Your task to perform on an android device: Search for macbook on ebay, select the first entry, and add it to the cart. Image 0: 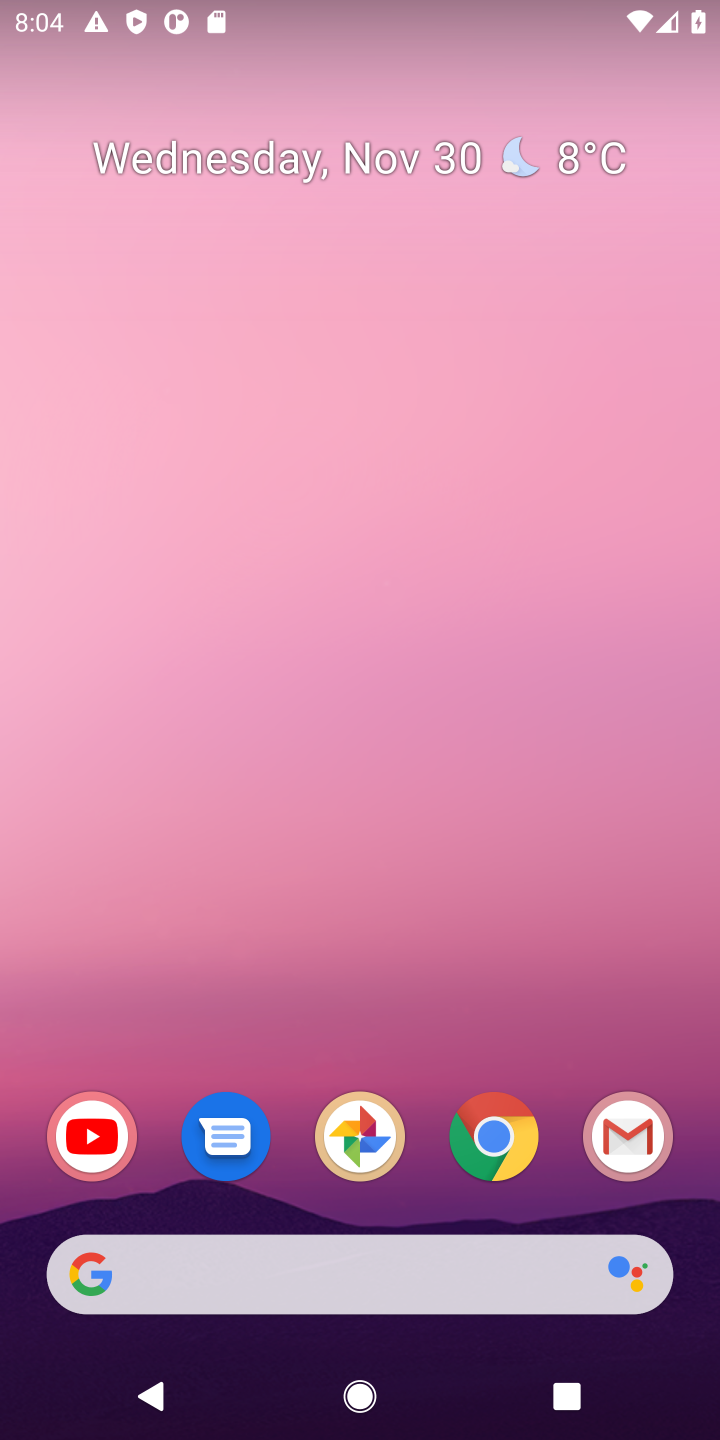
Step 0: click (494, 1142)
Your task to perform on an android device: Search for macbook on ebay, select the first entry, and add it to the cart. Image 1: 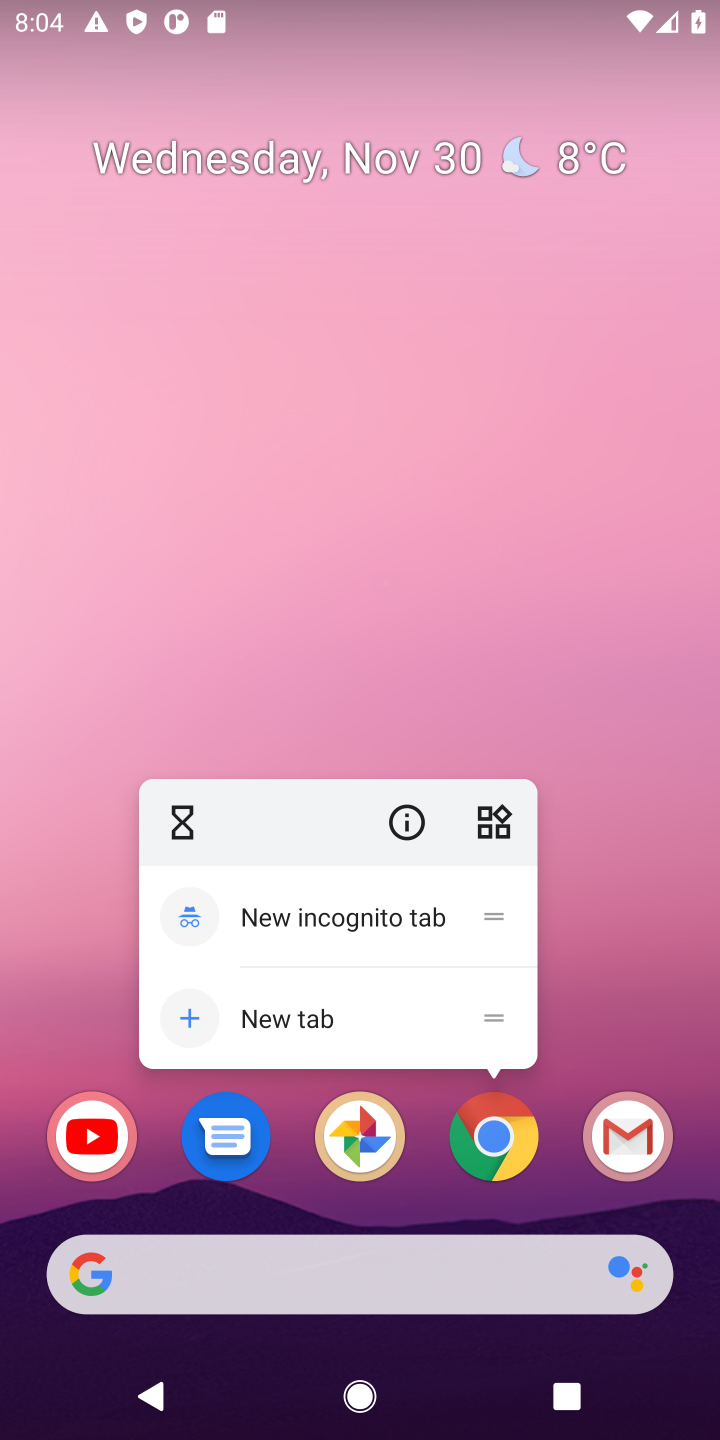
Step 1: click (494, 1142)
Your task to perform on an android device: Search for macbook on ebay, select the first entry, and add it to the cart. Image 2: 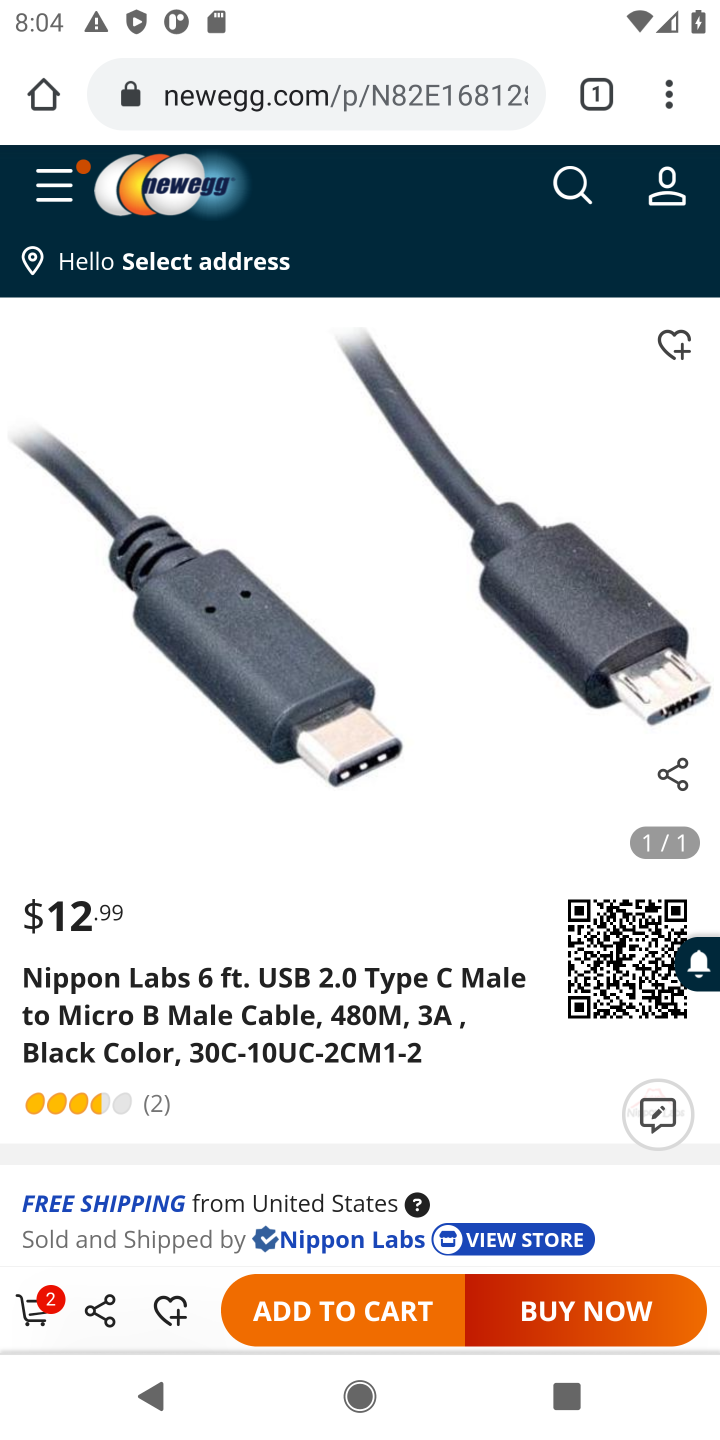
Step 2: click (285, 91)
Your task to perform on an android device: Search for macbook on ebay, select the first entry, and add it to the cart. Image 3: 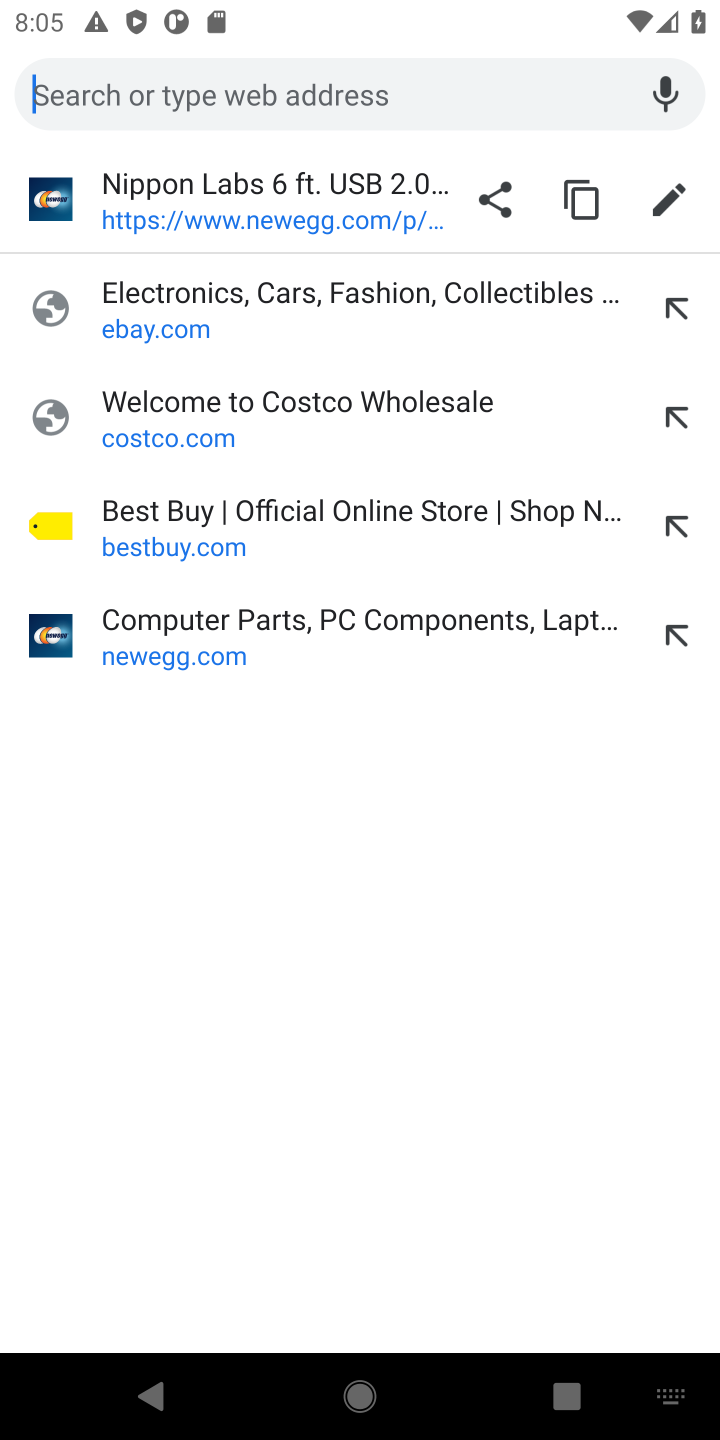
Step 3: click (146, 304)
Your task to perform on an android device: Search for macbook on ebay, select the first entry, and add it to the cart. Image 4: 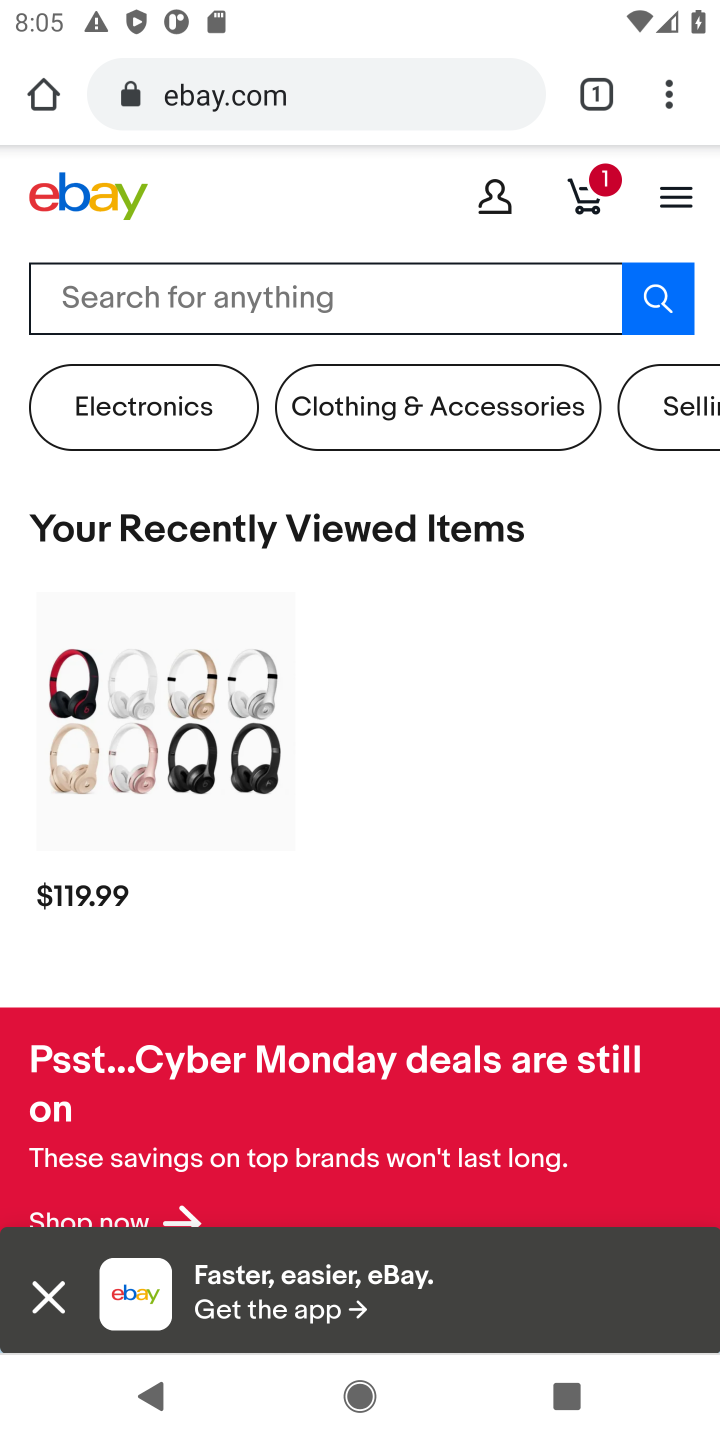
Step 4: click (150, 299)
Your task to perform on an android device: Search for macbook on ebay, select the first entry, and add it to the cart. Image 5: 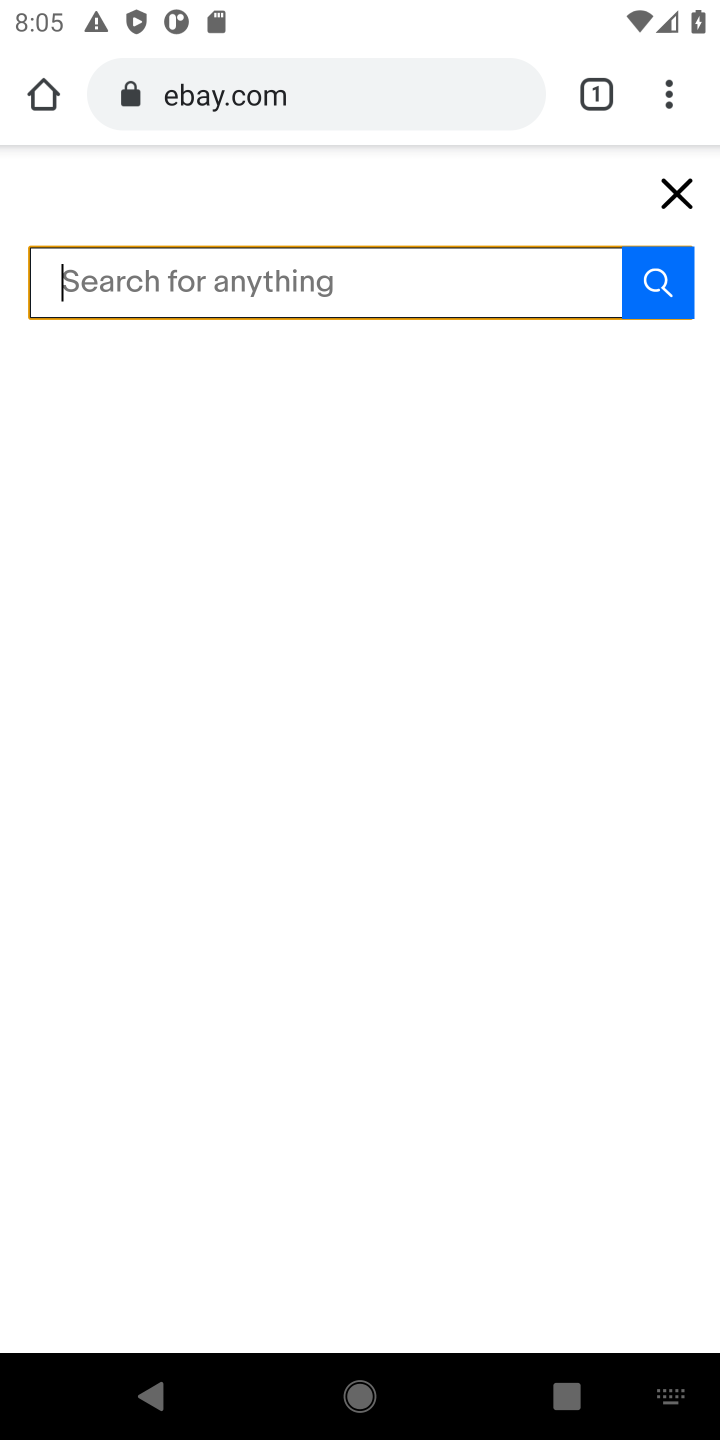
Step 5: type "macbook"
Your task to perform on an android device: Search for macbook on ebay, select the first entry, and add it to the cart. Image 6: 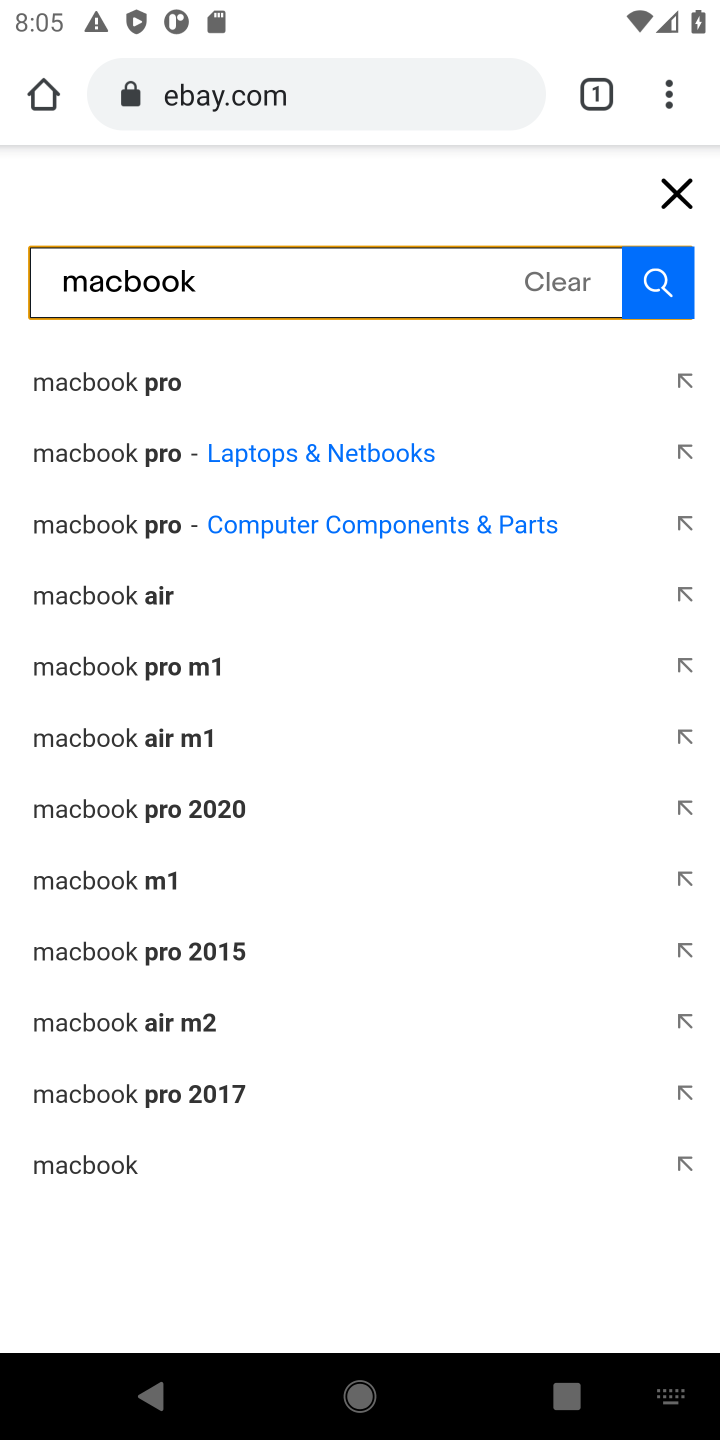
Step 6: click (96, 1162)
Your task to perform on an android device: Search for macbook on ebay, select the first entry, and add it to the cart. Image 7: 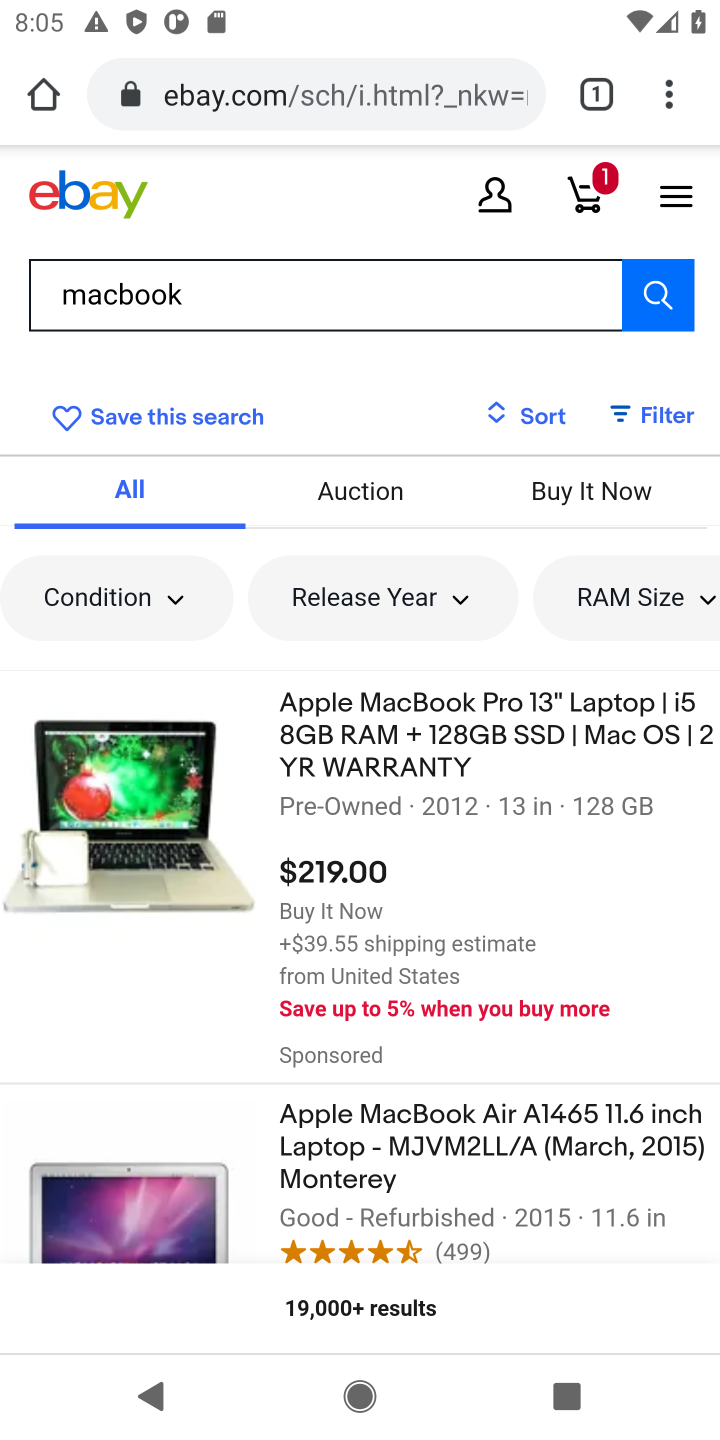
Step 7: click (400, 755)
Your task to perform on an android device: Search for macbook on ebay, select the first entry, and add it to the cart. Image 8: 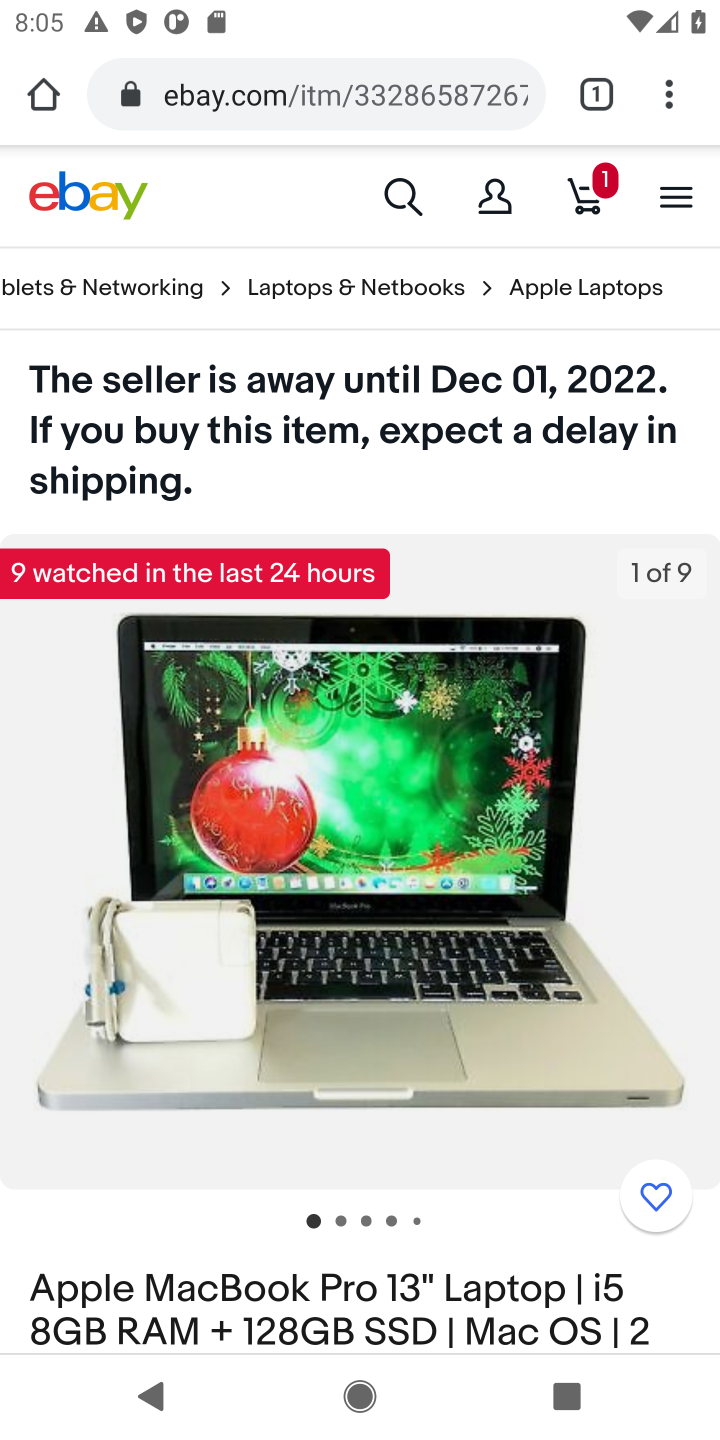
Step 8: drag from (459, 1094) to (405, 430)
Your task to perform on an android device: Search for macbook on ebay, select the first entry, and add it to the cart. Image 9: 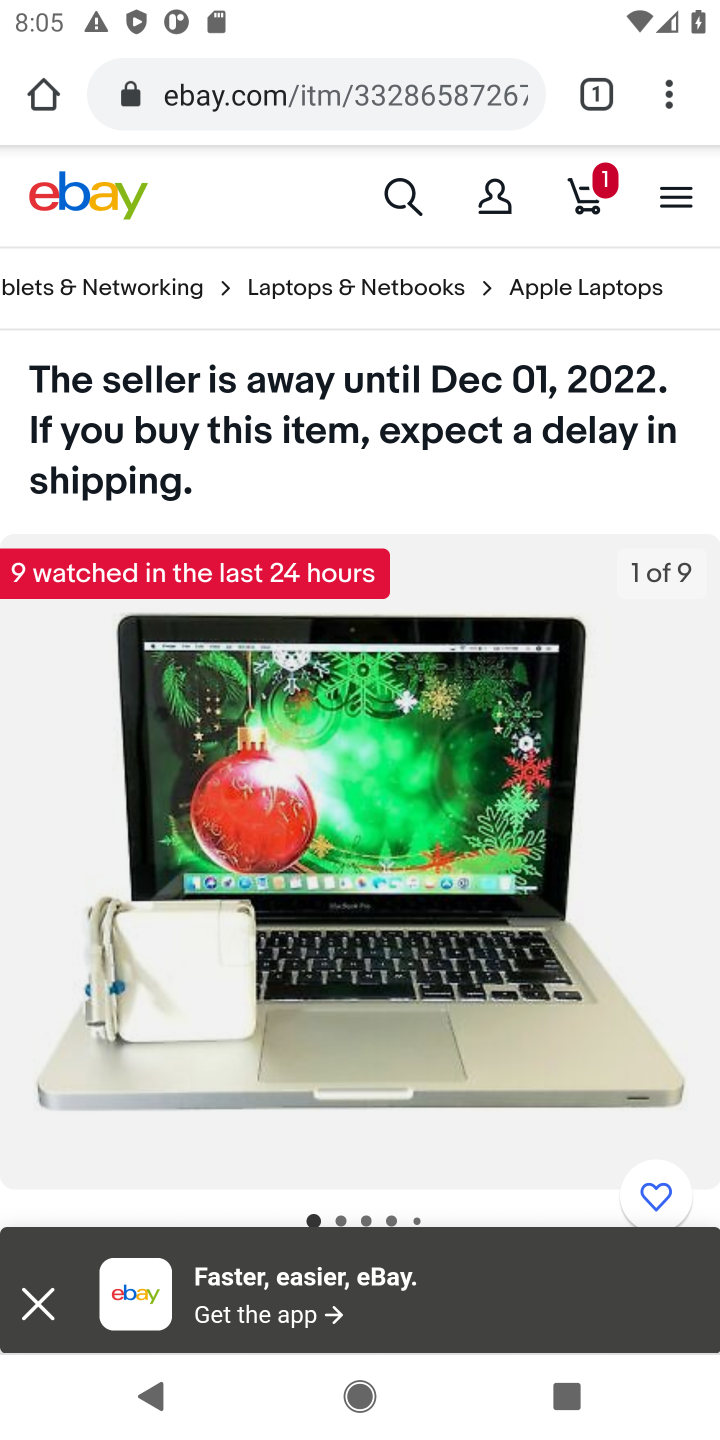
Step 9: drag from (394, 1098) to (435, 474)
Your task to perform on an android device: Search for macbook on ebay, select the first entry, and add it to the cart. Image 10: 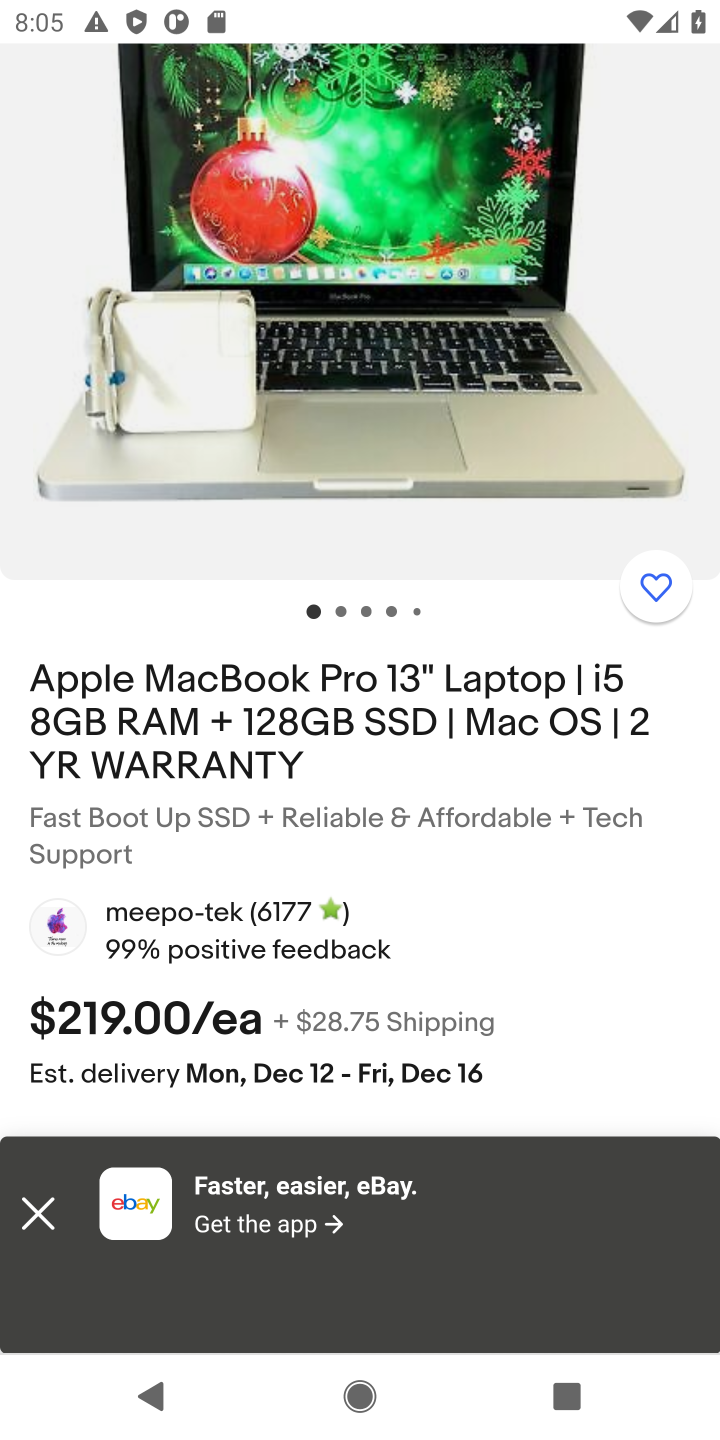
Step 10: drag from (491, 941) to (460, 332)
Your task to perform on an android device: Search for macbook on ebay, select the first entry, and add it to the cart. Image 11: 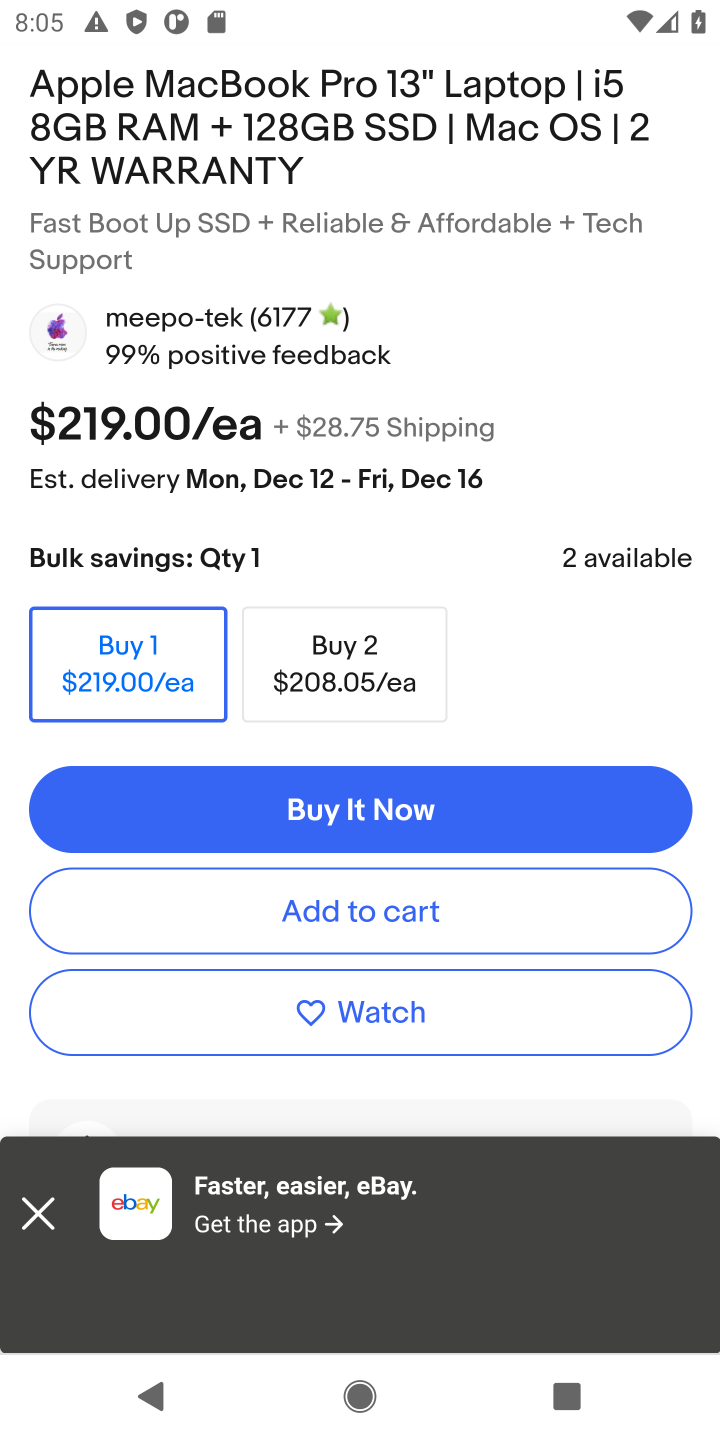
Step 11: click (305, 909)
Your task to perform on an android device: Search for macbook on ebay, select the first entry, and add it to the cart. Image 12: 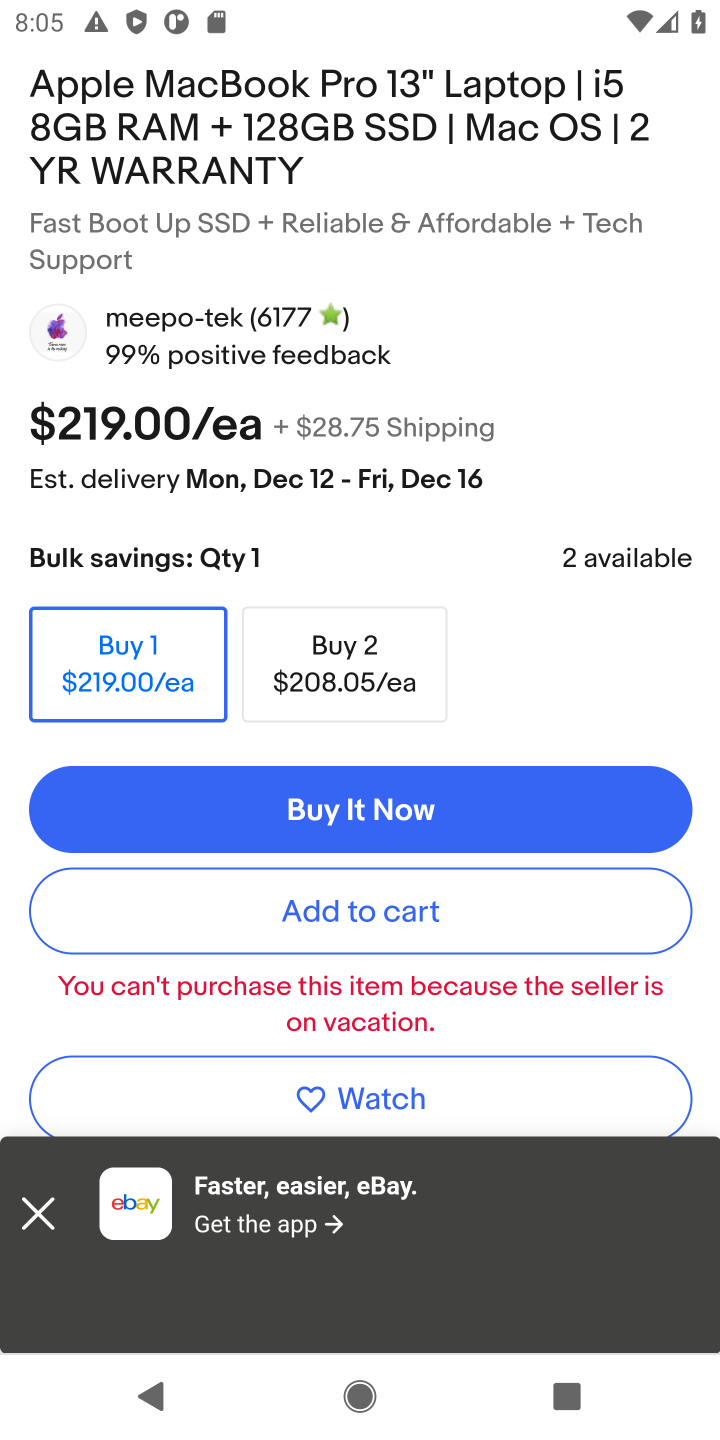
Step 12: task complete